Your task to perform on an android device: Find coffee shops on Maps Image 0: 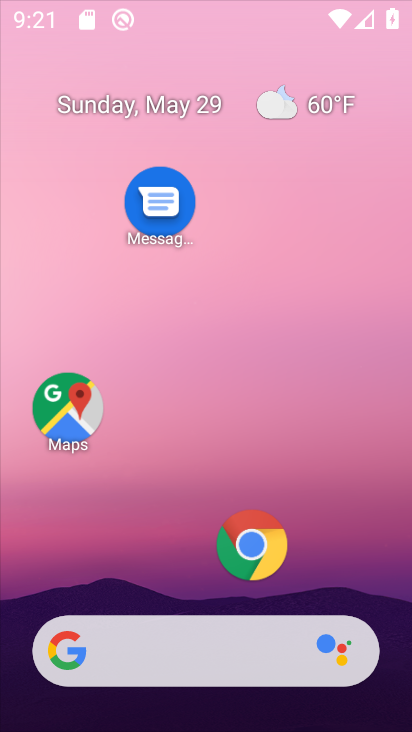
Step 0: click (239, 316)
Your task to perform on an android device: Find coffee shops on Maps Image 1: 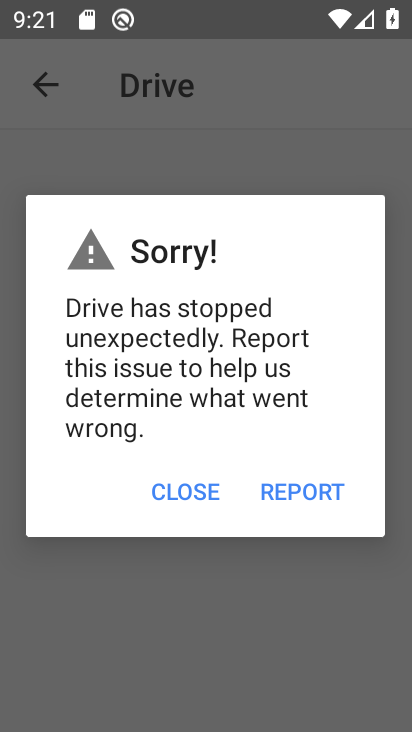
Step 1: click (187, 490)
Your task to perform on an android device: Find coffee shops on Maps Image 2: 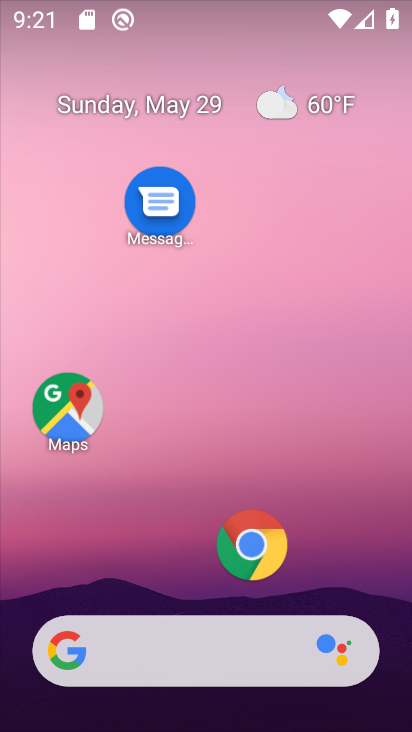
Step 2: click (69, 408)
Your task to perform on an android device: Find coffee shops on Maps Image 3: 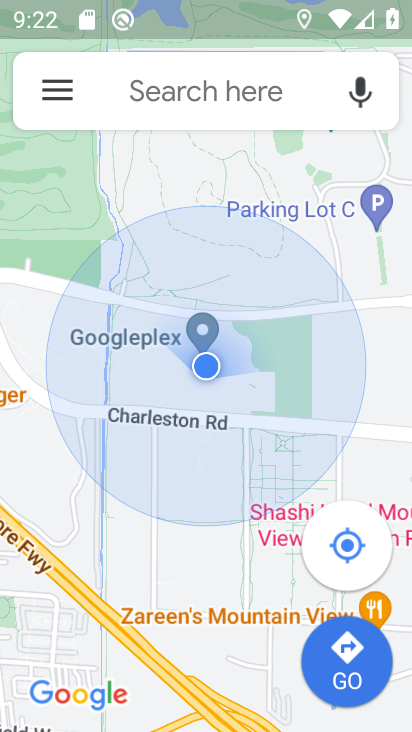
Step 3: click (158, 94)
Your task to perform on an android device: Find coffee shops on Maps Image 4: 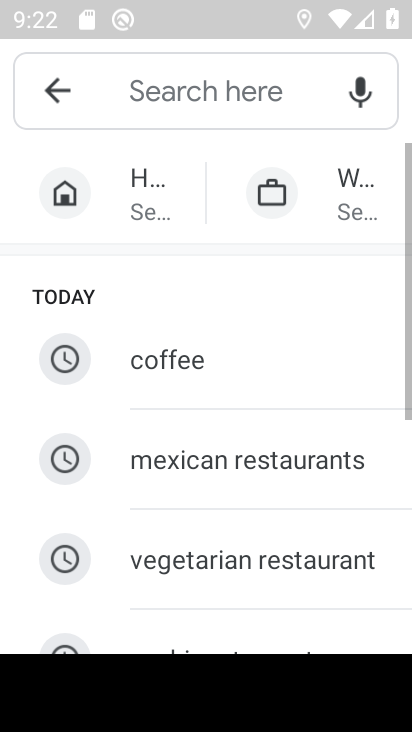
Step 4: click (173, 352)
Your task to perform on an android device: Find coffee shops on Maps Image 5: 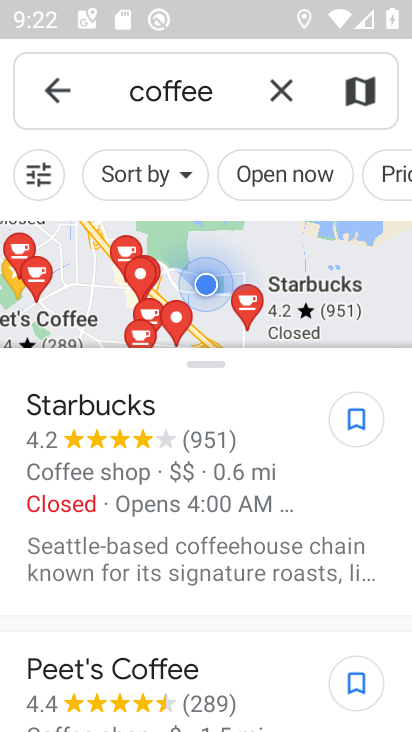
Step 5: task complete